Your task to perform on an android device: create a new album in the google photos Image 0: 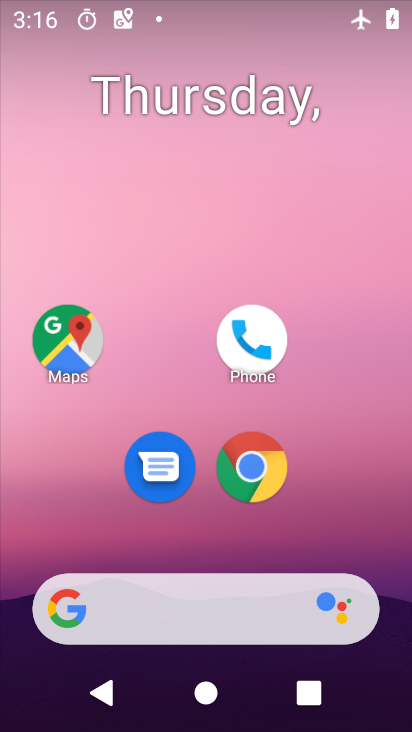
Step 0: click (308, 168)
Your task to perform on an android device: create a new album in the google photos Image 1: 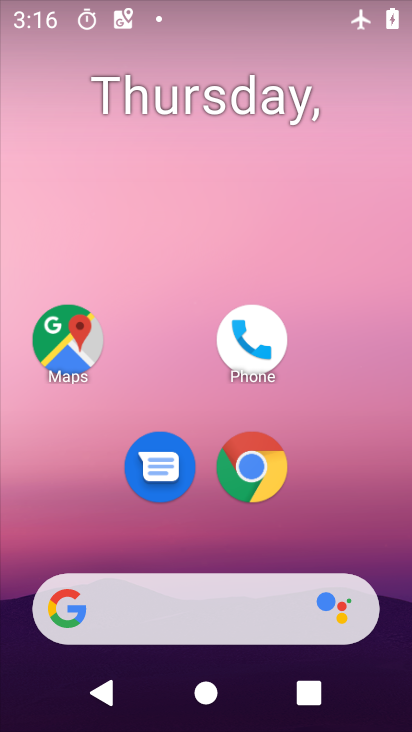
Step 1: drag from (200, 557) to (222, 170)
Your task to perform on an android device: create a new album in the google photos Image 2: 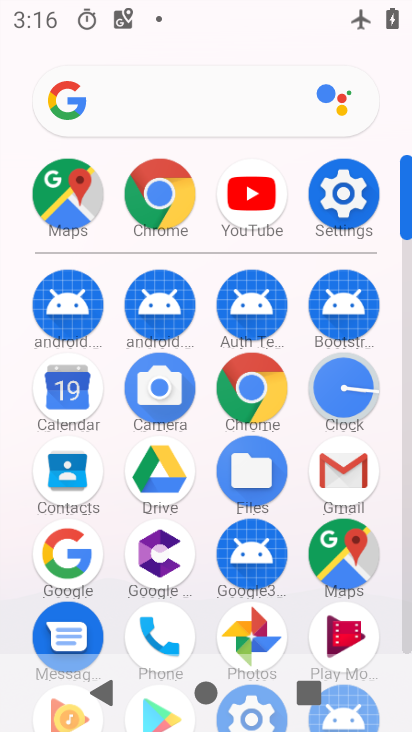
Step 2: drag from (211, 604) to (207, 255)
Your task to perform on an android device: create a new album in the google photos Image 3: 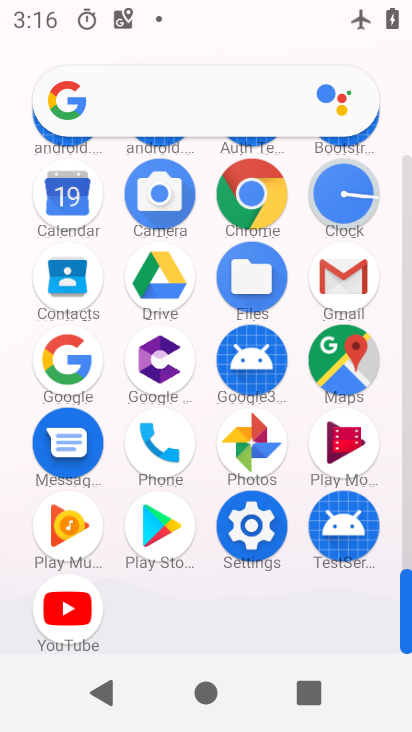
Step 3: click (242, 444)
Your task to perform on an android device: create a new album in the google photos Image 4: 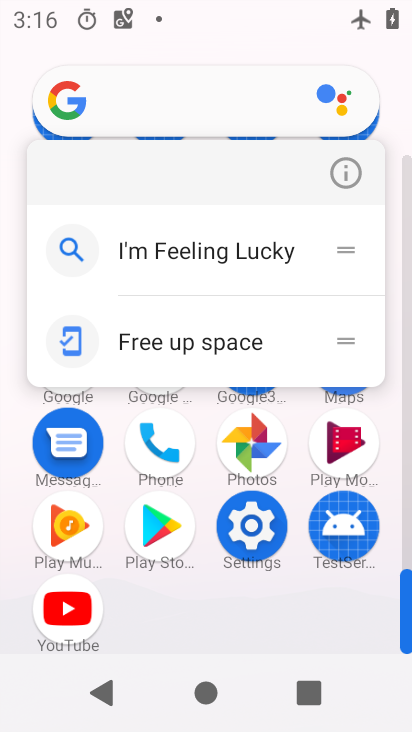
Step 4: click (336, 182)
Your task to perform on an android device: create a new album in the google photos Image 5: 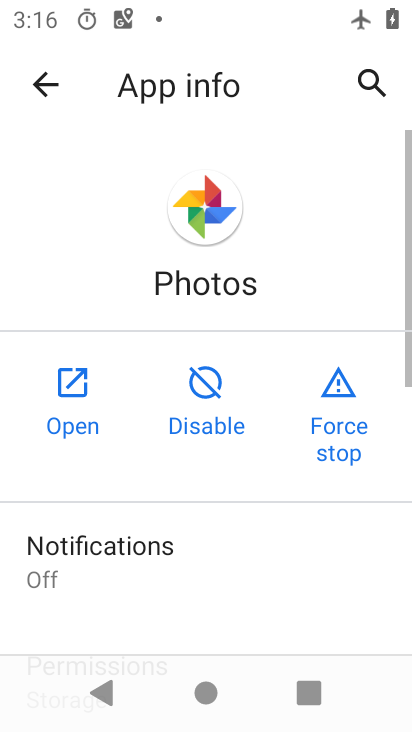
Step 5: click (51, 402)
Your task to perform on an android device: create a new album in the google photos Image 6: 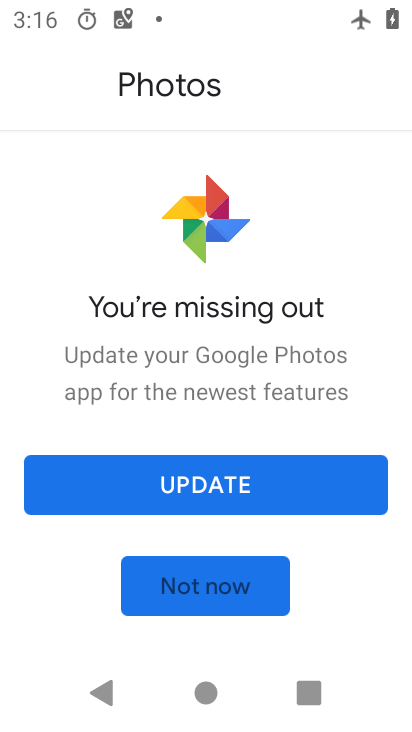
Step 6: click (350, 570)
Your task to perform on an android device: create a new album in the google photos Image 7: 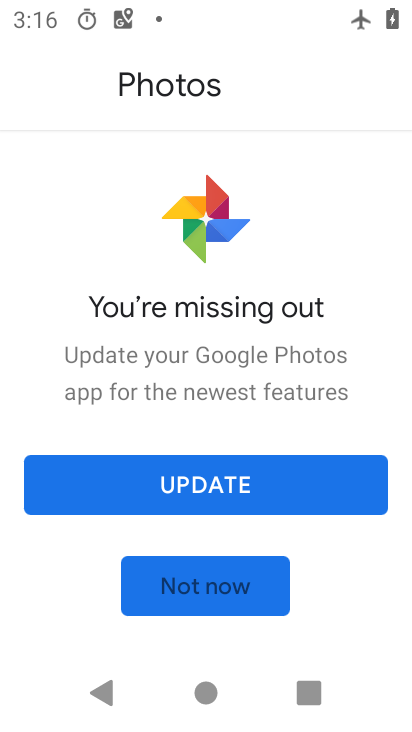
Step 7: click (372, 542)
Your task to perform on an android device: create a new album in the google photos Image 8: 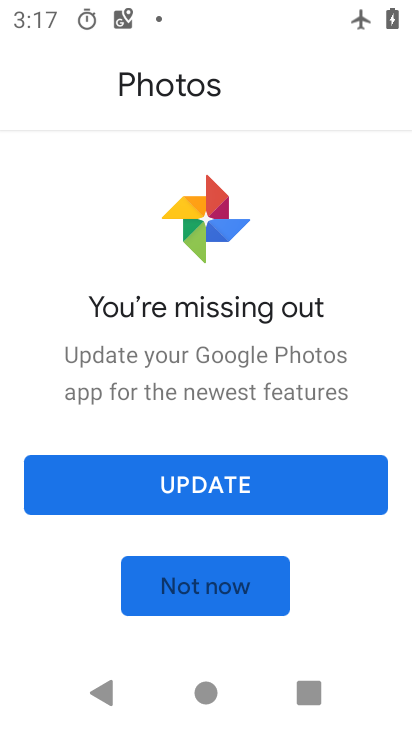
Step 8: click (181, 591)
Your task to perform on an android device: create a new album in the google photos Image 9: 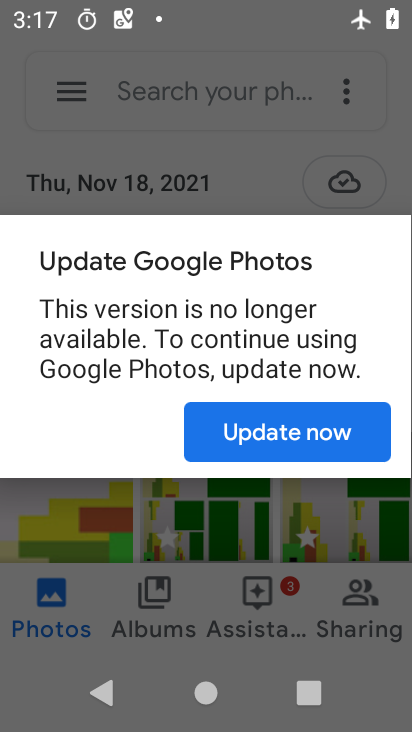
Step 9: click (244, 419)
Your task to perform on an android device: create a new album in the google photos Image 10: 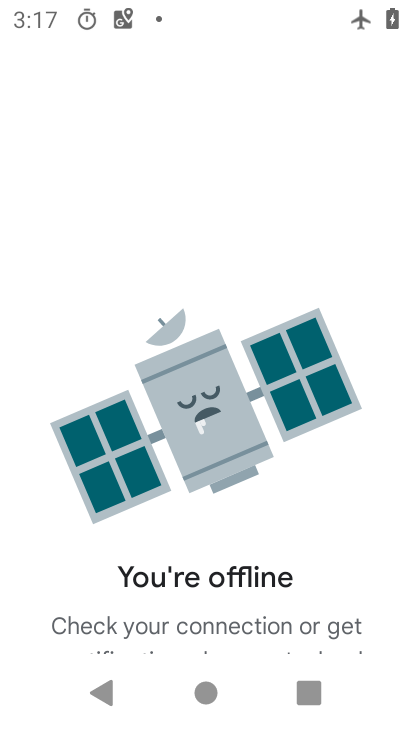
Step 10: task complete